Your task to perform on an android device: read, delete, or share a saved page in the chrome app Image 0: 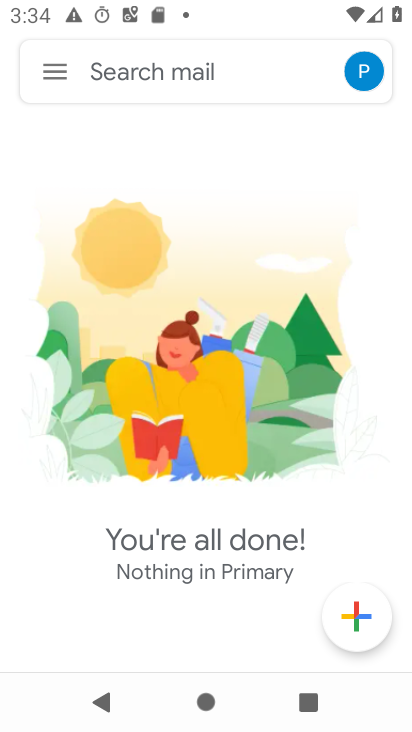
Step 0: press home button
Your task to perform on an android device: read, delete, or share a saved page in the chrome app Image 1: 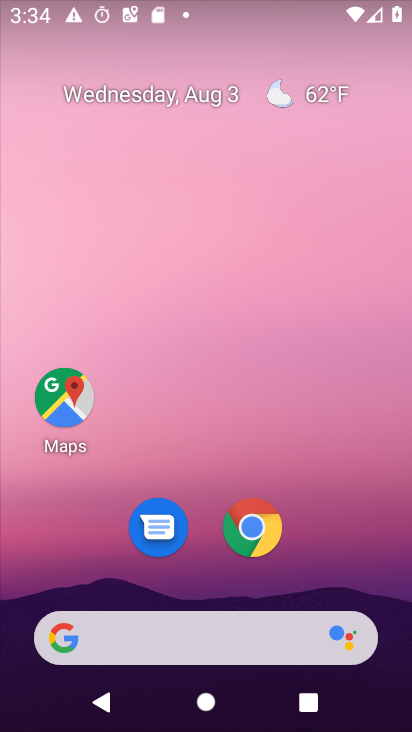
Step 1: drag from (335, 522) to (245, 82)
Your task to perform on an android device: read, delete, or share a saved page in the chrome app Image 2: 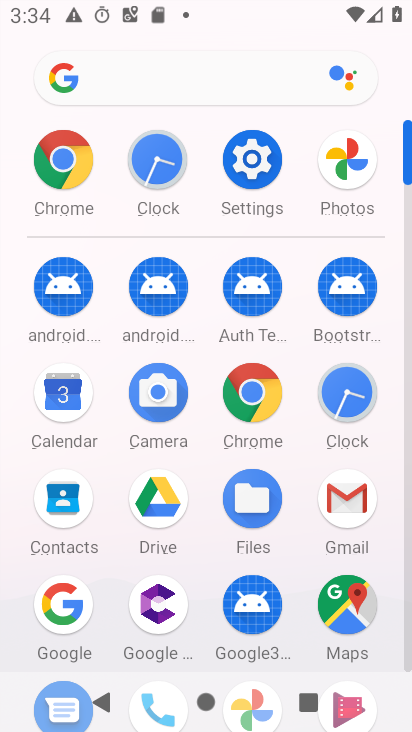
Step 2: click (248, 387)
Your task to perform on an android device: read, delete, or share a saved page in the chrome app Image 3: 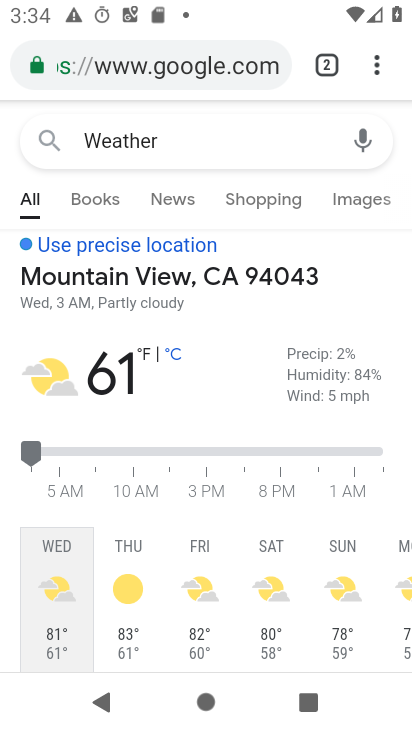
Step 3: task complete